Your task to perform on an android device: toggle notification dots Image 0: 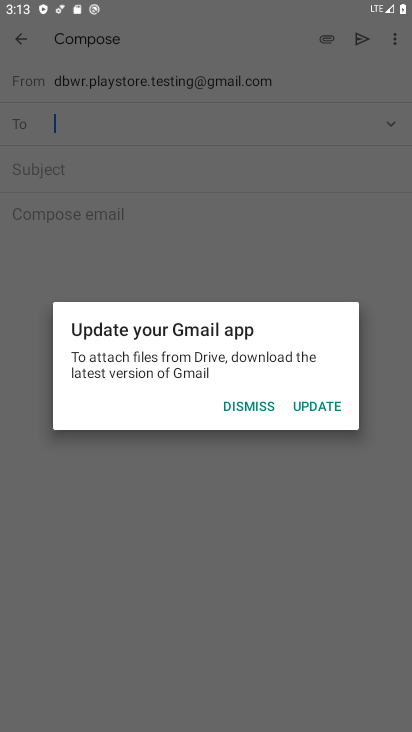
Step 0: click (266, 405)
Your task to perform on an android device: toggle notification dots Image 1: 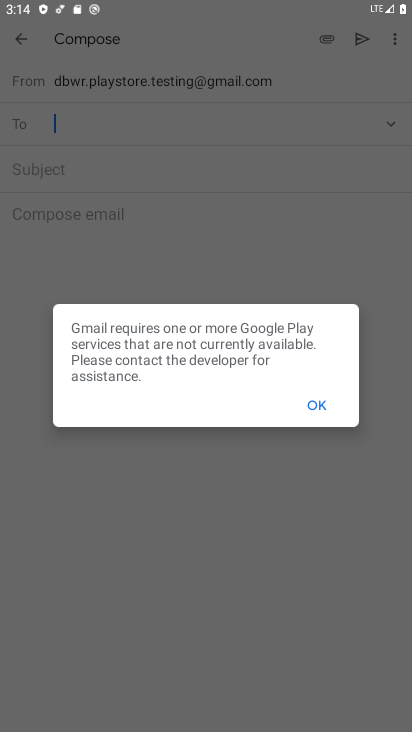
Step 1: click (317, 399)
Your task to perform on an android device: toggle notification dots Image 2: 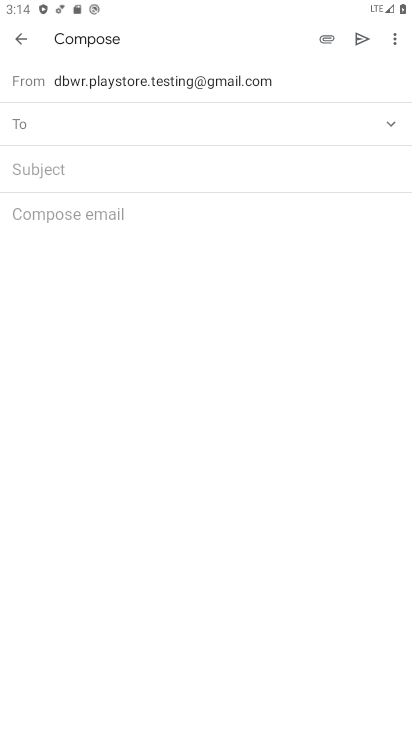
Step 2: press home button
Your task to perform on an android device: toggle notification dots Image 3: 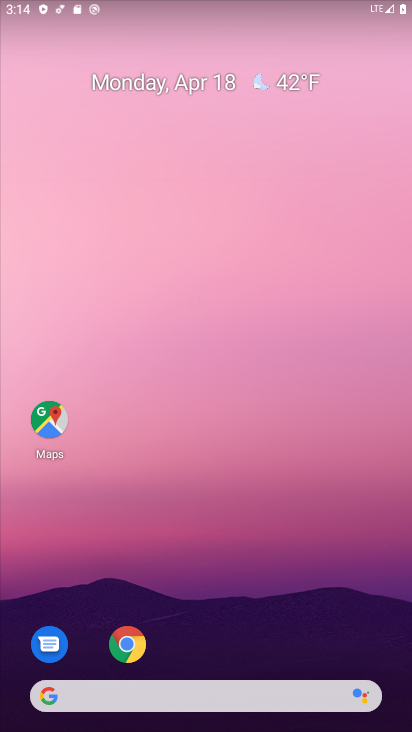
Step 3: drag from (227, 676) to (210, 261)
Your task to perform on an android device: toggle notification dots Image 4: 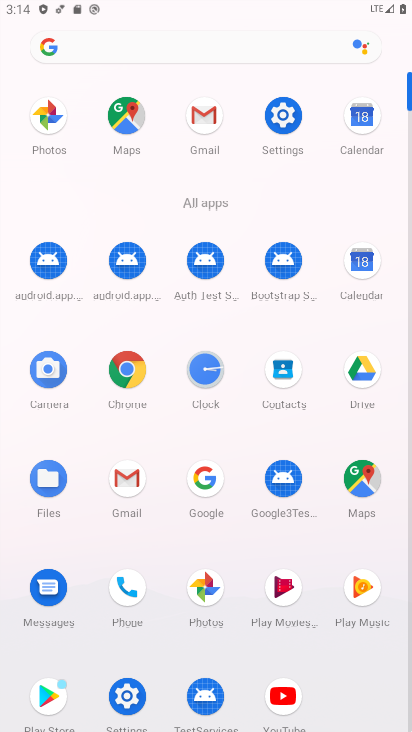
Step 4: click (283, 120)
Your task to perform on an android device: toggle notification dots Image 5: 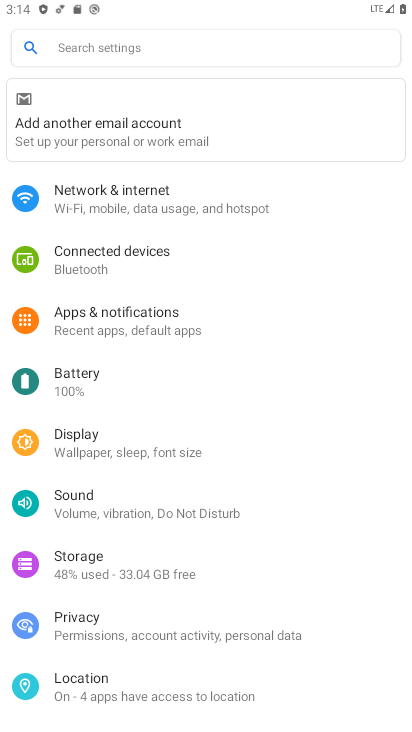
Step 5: click (172, 320)
Your task to perform on an android device: toggle notification dots Image 6: 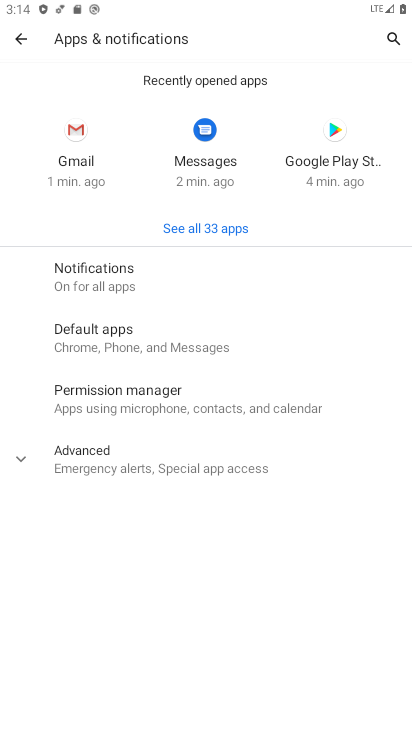
Step 6: click (143, 275)
Your task to perform on an android device: toggle notification dots Image 7: 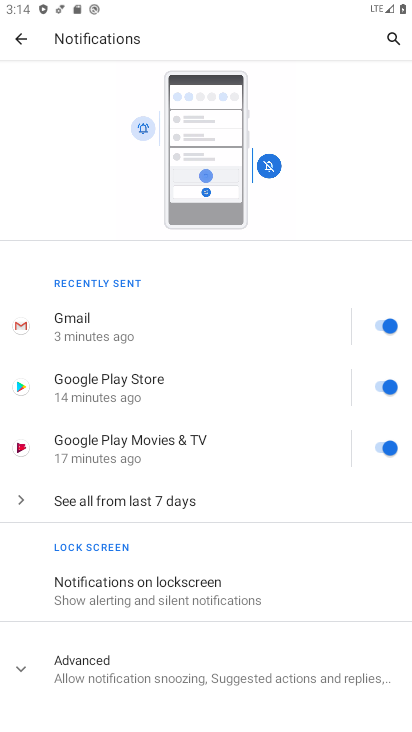
Step 7: click (273, 676)
Your task to perform on an android device: toggle notification dots Image 8: 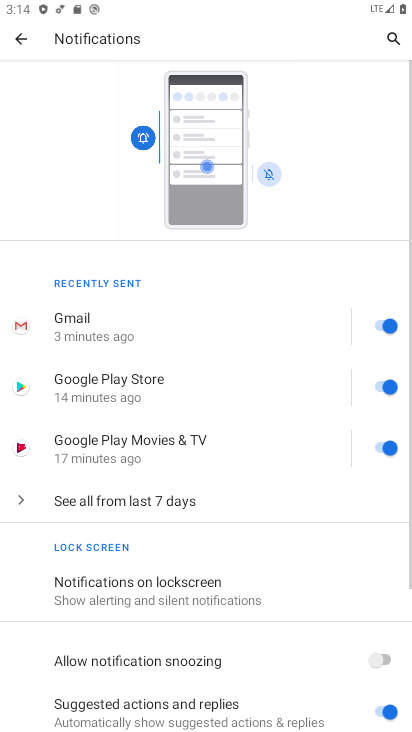
Step 8: drag from (274, 685) to (249, 317)
Your task to perform on an android device: toggle notification dots Image 9: 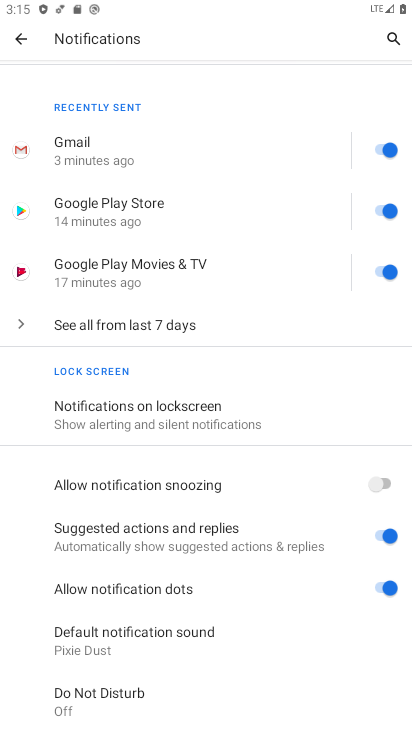
Step 9: click (379, 583)
Your task to perform on an android device: toggle notification dots Image 10: 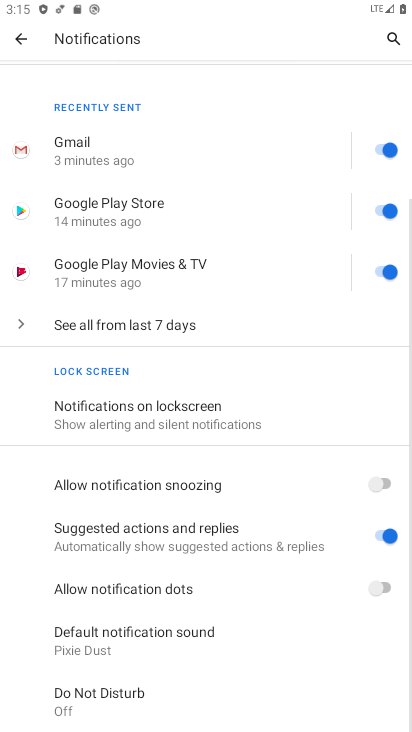
Step 10: task complete